Your task to perform on an android device: open device folders in google photos Image 0: 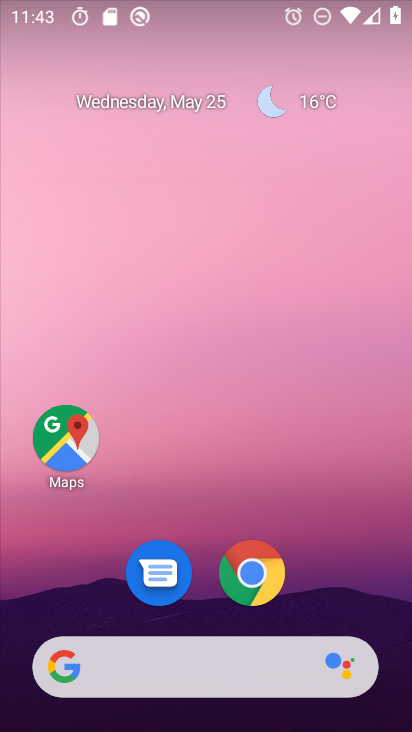
Step 0: drag from (333, 612) to (333, 4)
Your task to perform on an android device: open device folders in google photos Image 1: 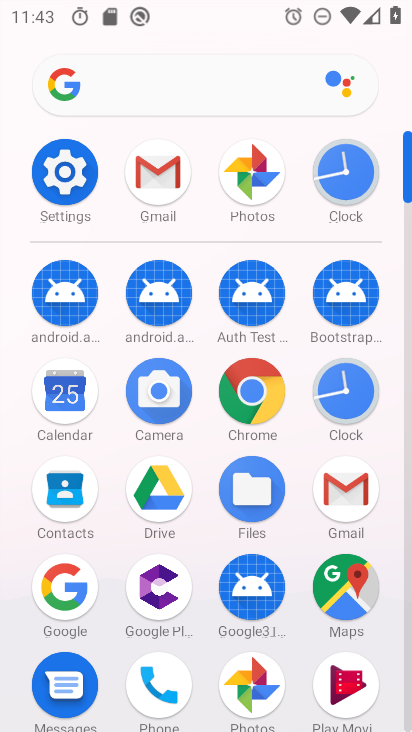
Step 1: click (248, 184)
Your task to perform on an android device: open device folders in google photos Image 2: 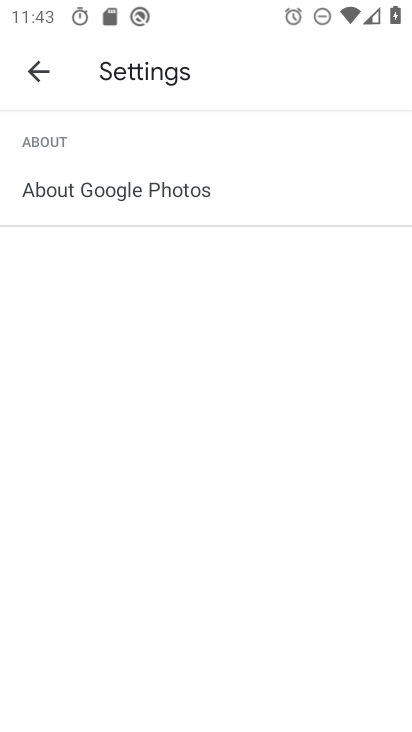
Step 2: click (42, 77)
Your task to perform on an android device: open device folders in google photos Image 3: 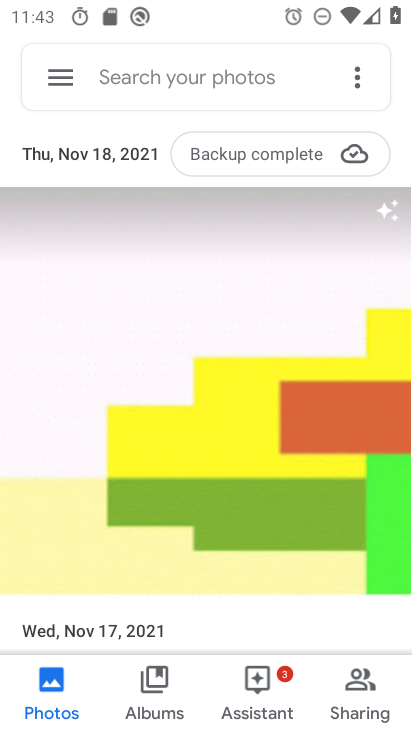
Step 3: click (54, 84)
Your task to perform on an android device: open device folders in google photos Image 4: 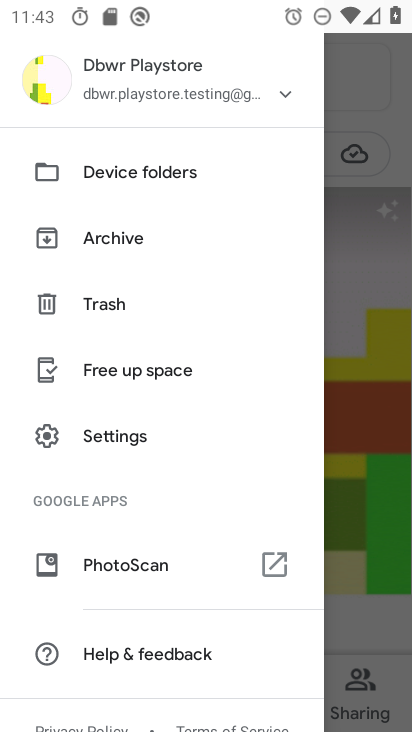
Step 4: click (105, 179)
Your task to perform on an android device: open device folders in google photos Image 5: 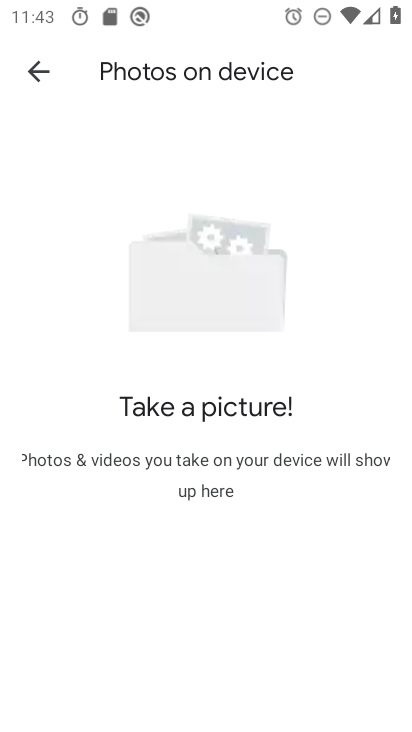
Step 5: task complete